Your task to perform on an android device: Clear the cart on amazon. Search for lenovo thinkpad on amazon, select the first entry, add it to the cart, then select checkout. Image 0: 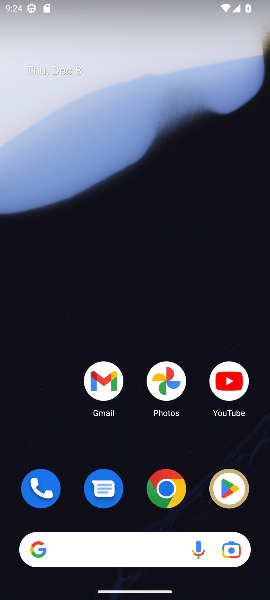
Step 0: drag from (136, 544) to (104, 190)
Your task to perform on an android device: Clear the cart on amazon. Search for lenovo thinkpad on amazon, select the first entry, add it to the cart, then select checkout. Image 1: 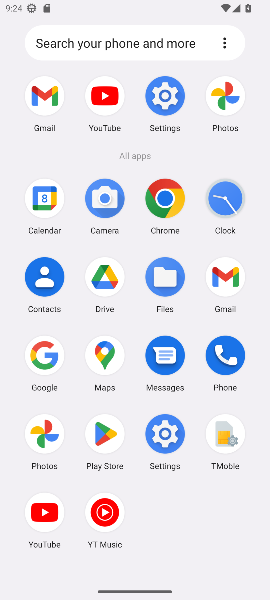
Step 1: click (41, 357)
Your task to perform on an android device: Clear the cart on amazon. Search for lenovo thinkpad on amazon, select the first entry, add it to the cart, then select checkout. Image 2: 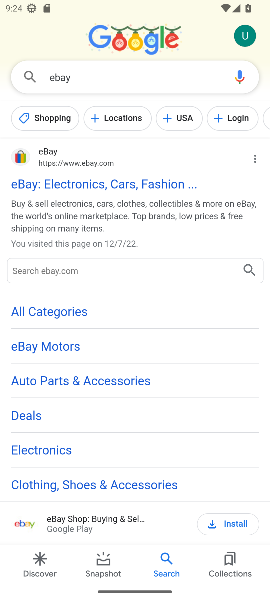
Step 2: click (66, 77)
Your task to perform on an android device: Clear the cart on amazon. Search for lenovo thinkpad on amazon, select the first entry, add it to the cart, then select checkout. Image 3: 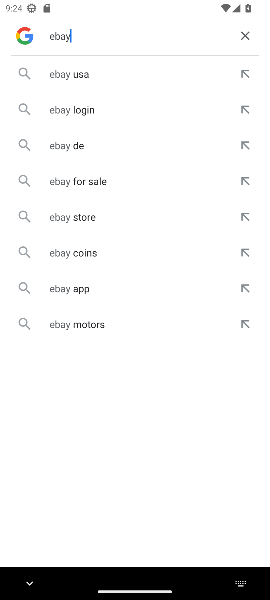
Step 3: click (248, 33)
Your task to perform on an android device: Clear the cart on amazon. Search for lenovo thinkpad on amazon, select the first entry, add it to the cart, then select checkout. Image 4: 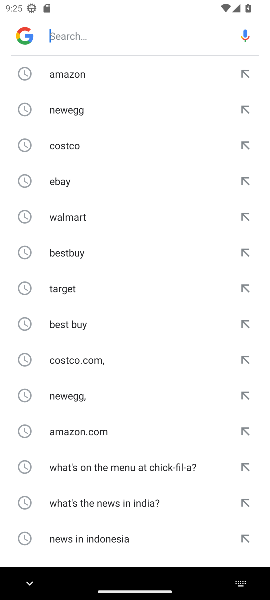
Step 4: click (58, 72)
Your task to perform on an android device: Clear the cart on amazon. Search for lenovo thinkpad on amazon, select the first entry, add it to the cart, then select checkout. Image 5: 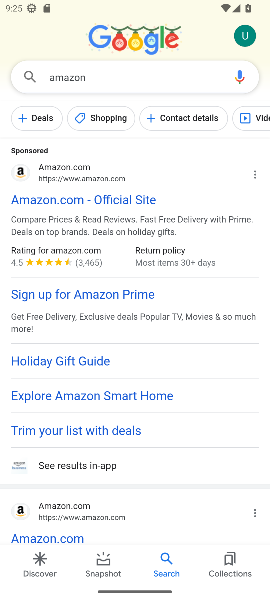
Step 5: click (64, 202)
Your task to perform on an android device: Clear the cart on amazon. Search for lenovo thinkpad on amazon, select the first entry, add it to the cart, then select checkout. Image 6: 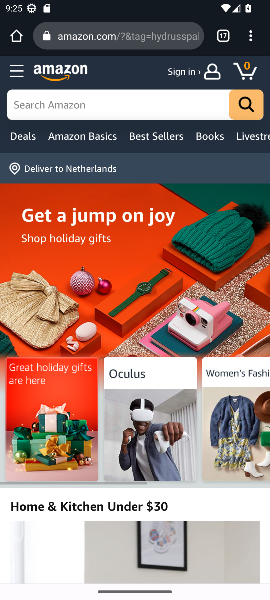
Step 6: click (38, 100)
Your task to perform on an android device: Clear the cart on amazon. Search for lenovo thinkpad on amazon, select the first entry, add it to the cart, then select checkout. Image 7: 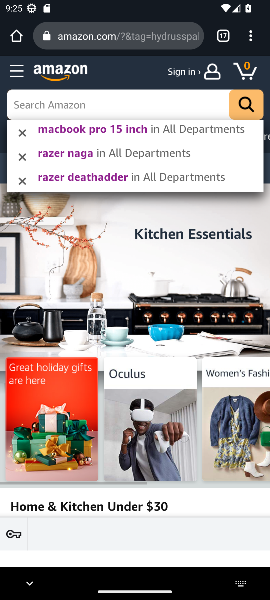
Step 7: type "lenovo thinkpad"
Your task to perform on an android device: Clear the cart on amazon. Search for lenovo thinkpad on amazon, select the first entry, add it to the cart, then select checkout. Image 8: 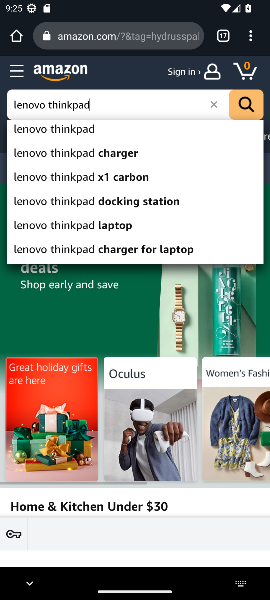
Step 8: click (37, 124)
Your task to perform on an android device: Clear the cart on amazon. Search for lenovo thinkpad on amazon, select the first entry, add it to the cart, then select checkout. Image 9: 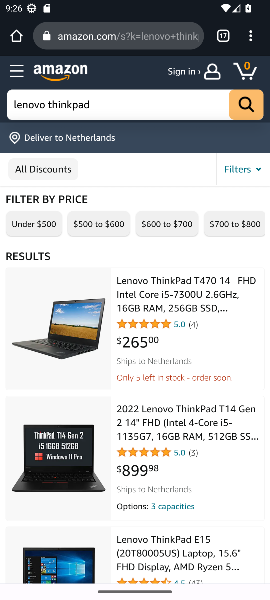
Step 9: click (153, 301)
Your task to perform on an android device: Clear the cart on amazon. Search for lenovo thinkpad on amazon, select the first entry, add it to the cart, then select checkout. Image 10: 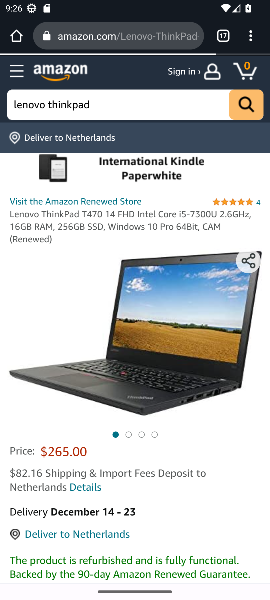
Step 10: drag from (149, 509) to (146, 203)
Your task to perform on an android device: Clear the cart on amazon. Search for lenovo thinkpad on amazon, select the first entry, add it to the cart, then select checkout. Image 11: 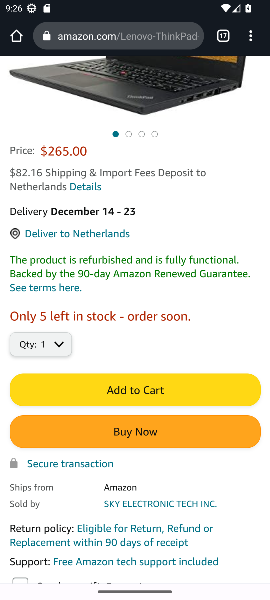
Step 11: click (133, 388)
Your task to perform on an android device: Clear the cart on amazon. Search for lenovo thinkpad on amazon, select the first entry, add it to the cart, then select checkout. Image 12: 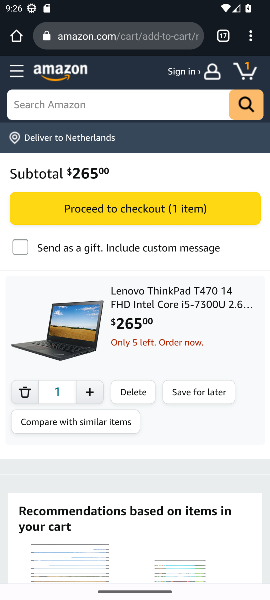
Step 12: drag from (133, 486) to (131, 235)
Your task to perform on an android device: Clear the cart on amazon. Search for lenovo thinkpad on amazon, select the first entry, add it to the cart, then select checkout. Image 13: 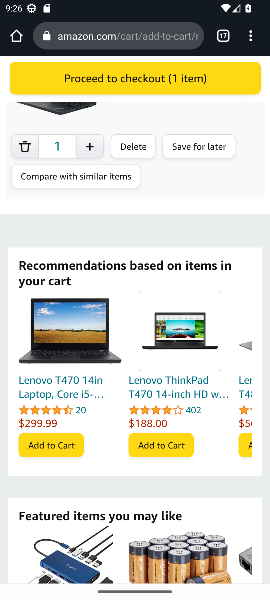
Step 13: click (134, 77)
Your task to perform on an android device: Clear the cart on amazon. Search for lenovo thinkpad on amazon, select the first entry, add it to the cart, then select checkout. Image 14: 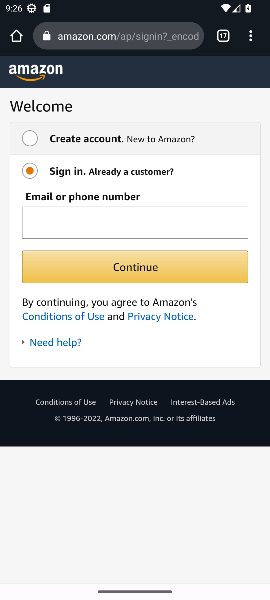
Step 14: task complete